Your task to perform on an android device: Show me recent news Image 0: 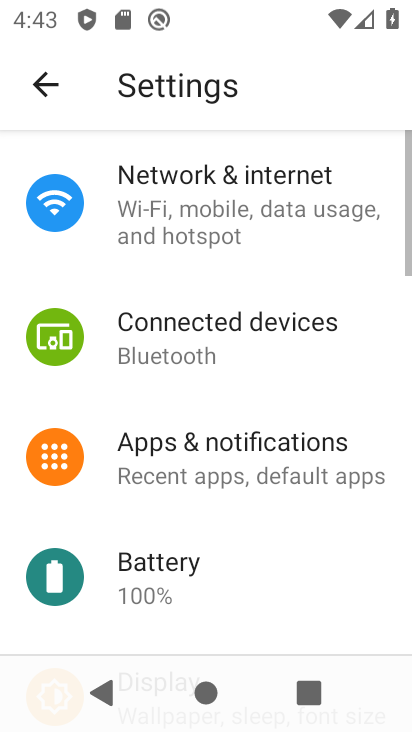
Step 0: drag from (270, 574) to (243, 92)
Your task to perform on an android device: Show me recent news Image 1: 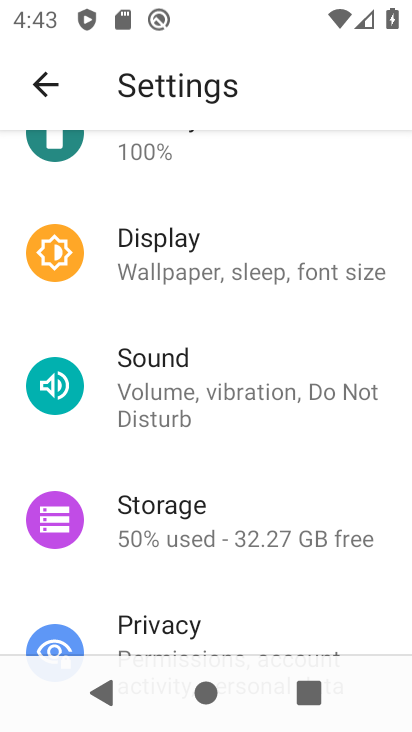
Step 1: drag from (230, 598) to (269, 150)
Your task to perform on an android device: Show me recent news Image 2: 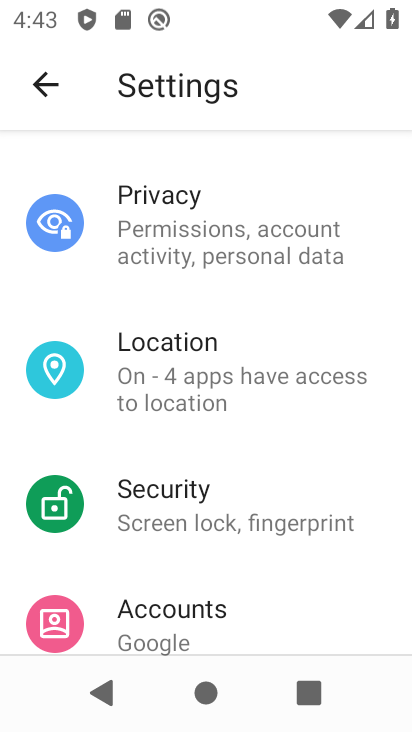
Step 2: drag from (239, 611) to (290, 180)
Your task to perform on an android device: Show me recent news Image 3: 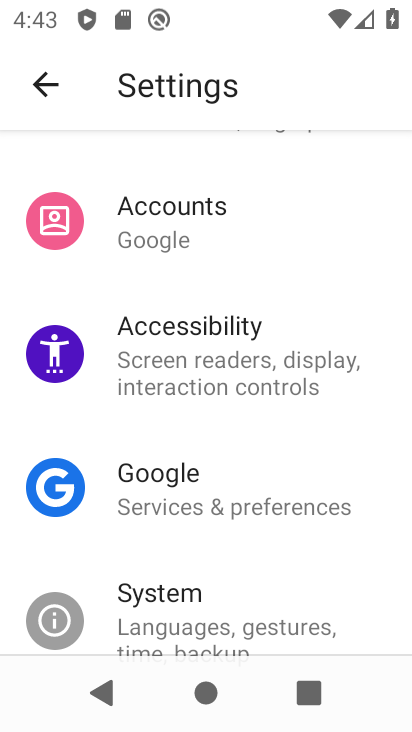
Step 3: drag from (318, 598) to (278, 221)
Your task to perform on an android device: Show me recent news Image 4: 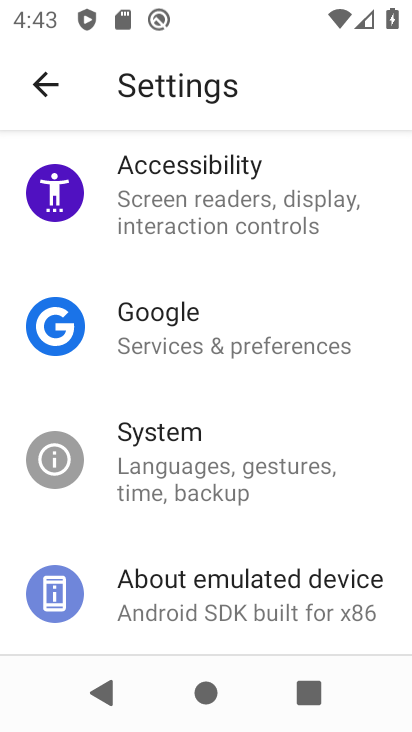
Step 4: drag from (263, 242) to (282, 678)
Your task to perform on an android device: Show me recent news Image 5: 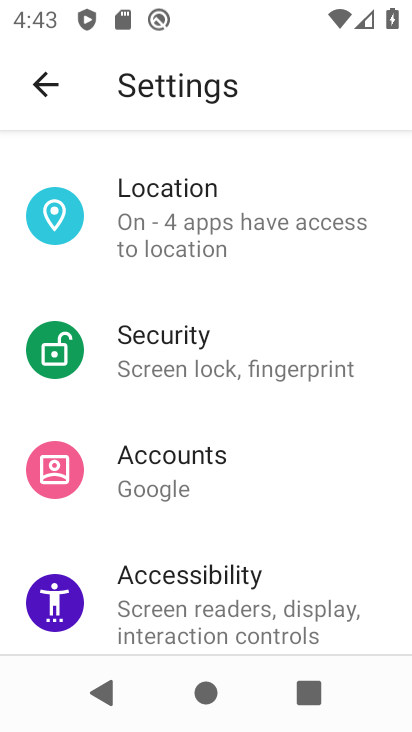
Step 5: drag from (275, 238) to (257, 649)
Your task to perform on an android device: Show me recent news Image 6: 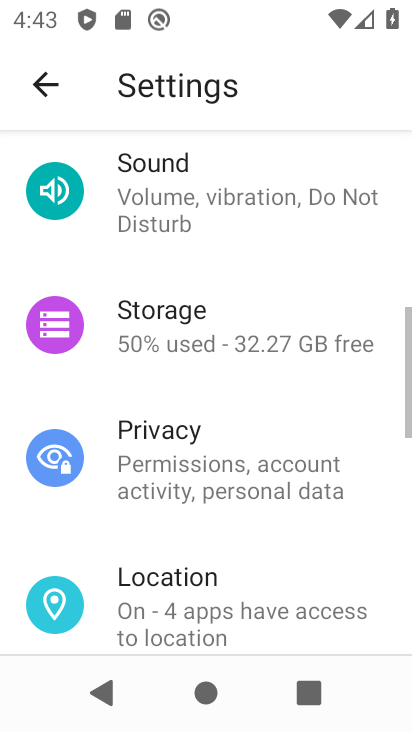
Step 6: drag from (292, 272) to (292, 649)
Your task to perform on an android device: Show me recent news Image 7: 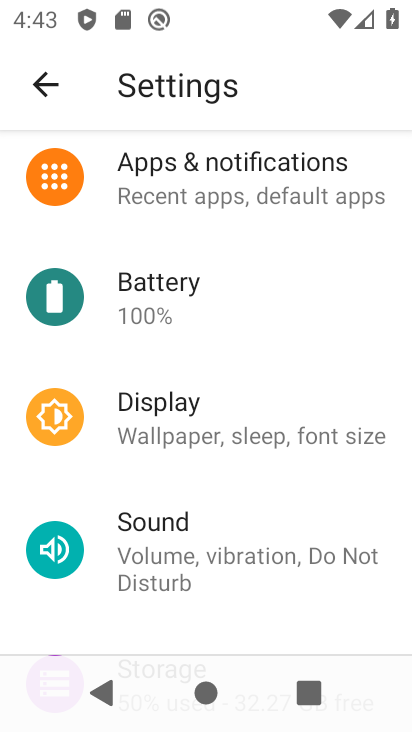
Step 7: press home button
Your task to perform on an android device: Show me recent news Image 8: 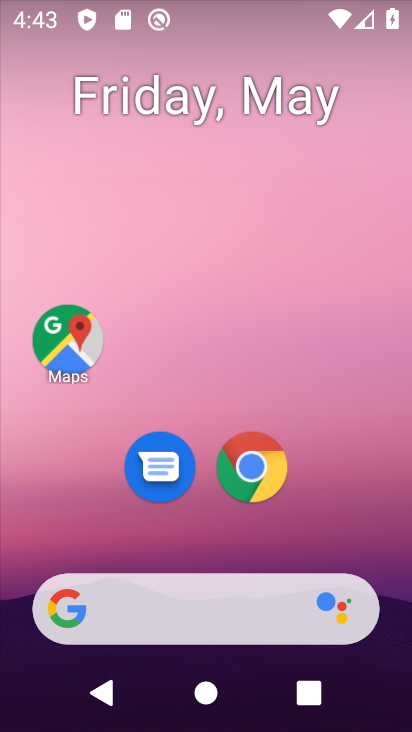
Step 8: click (264, 483)
Your task to perform on an android device: Show me recent news Image 9: 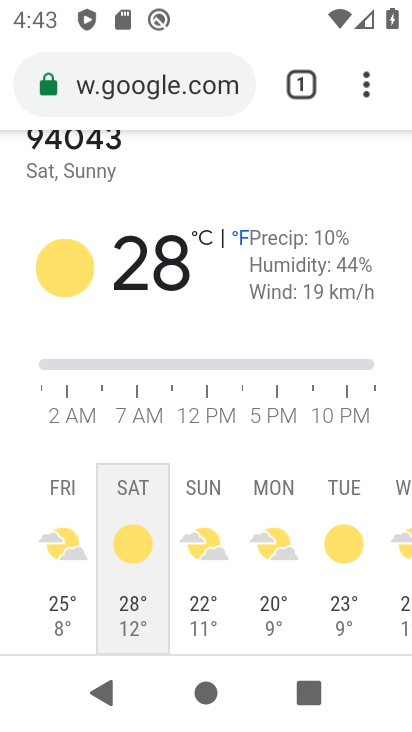
Step 9: click (193, 74)
Your task to perform on an android device: Show me recent news Image 10: 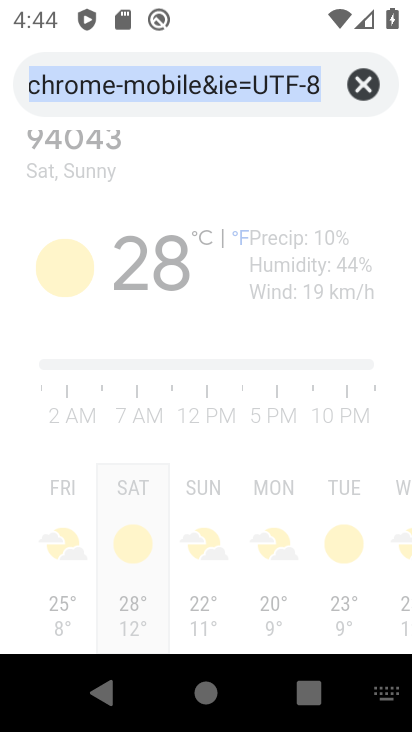
Step 10: type "news"
Your task to perform on an android device: Show me recent news Image 11: 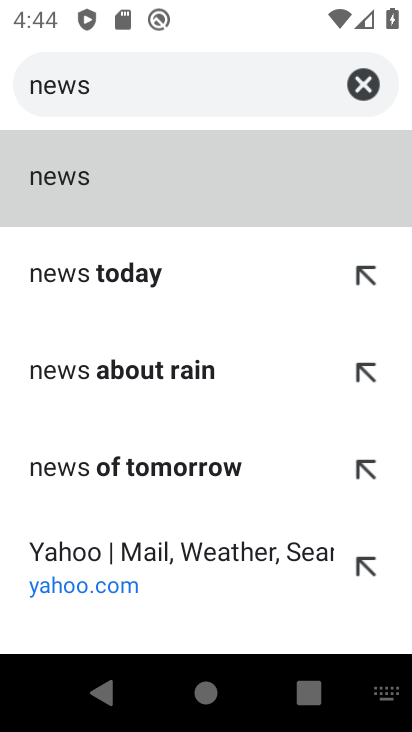
Step 11: click (39, 173)
Your task to perform on an android device: Show me recent news Image 12: 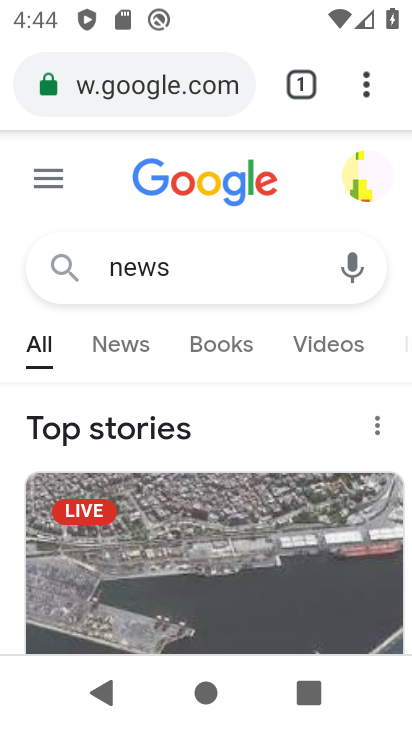
Step 12: click (133, 351)
Your task to perform on an android device: Show me recent news Image 13: 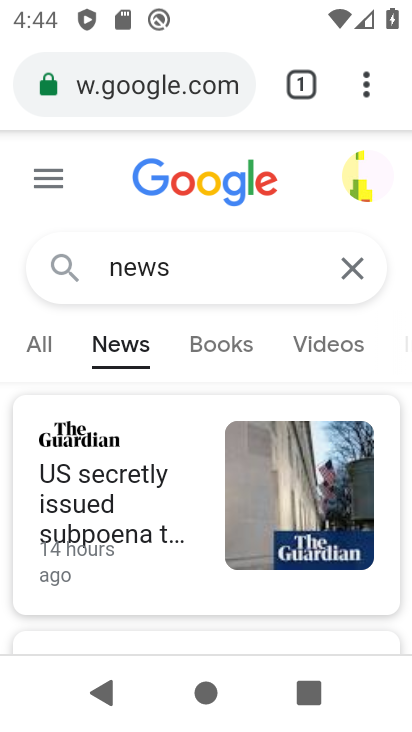
Step 13: task complete